Your task to perform on an android device: choose inbox layout in the gmail app Image 0: 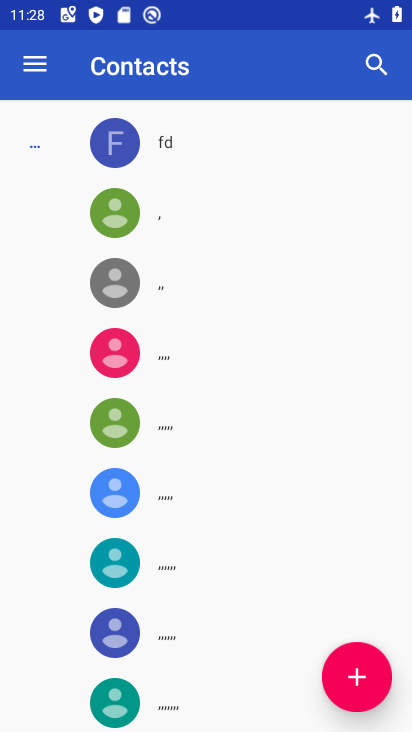
Step 0: press home button
Your task to perform on an android device: choose inbox layout in the gmail app Image 1: 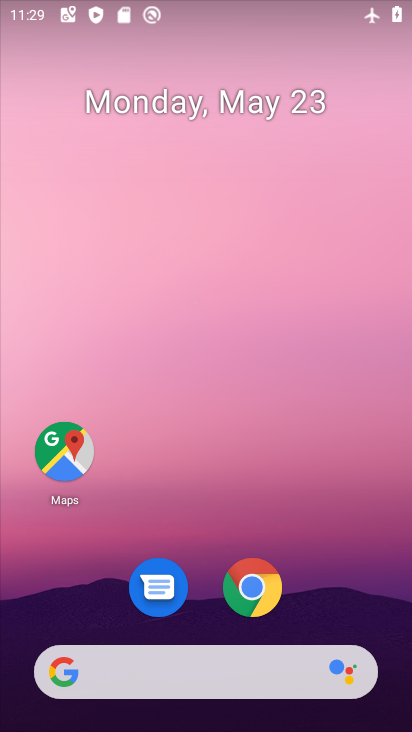
Step 1: drag from (390, 636) to (278, 165)
Your task to perform on an android device: choose inbox layout in the gmail app Image 2: 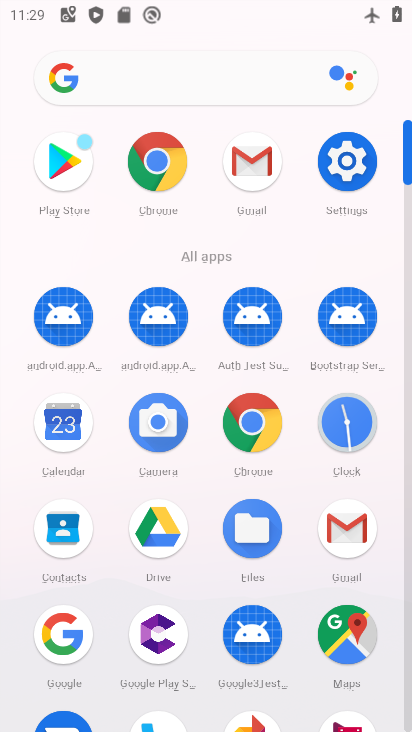
Step 2: click (251, 174)
Your task to perform on an android device: choose inbox layout in the gmail app Image 3: 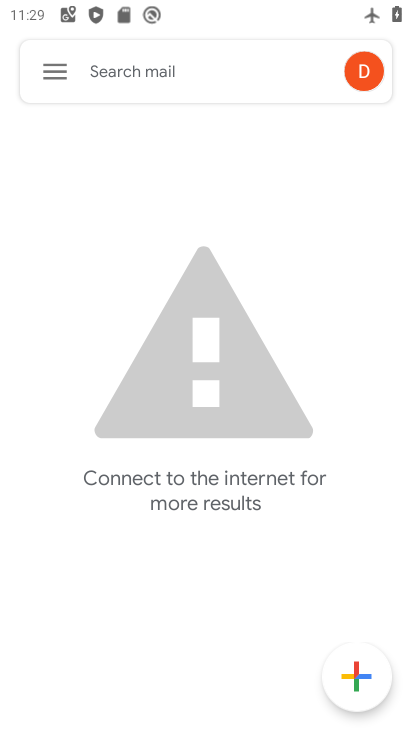
Step 3: click (56, 80)
Your task to perform on an android device: choose inbox layout in the gmail app Image 4: 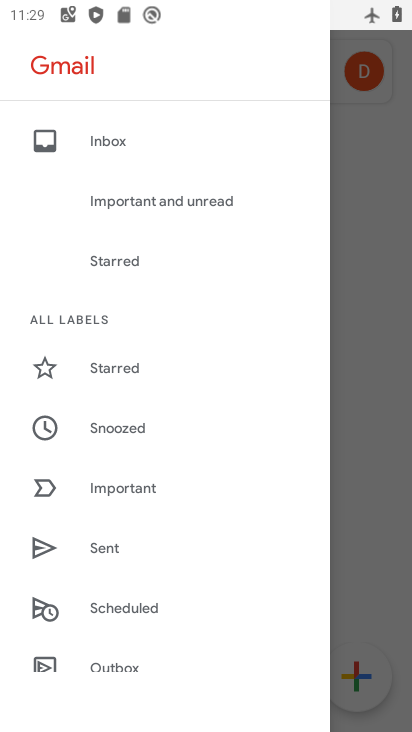
Step 4: drag from (167, 645) to (134, 237)
Your task to perform on an android device: choose inbox layout in the gmail app Image 5: 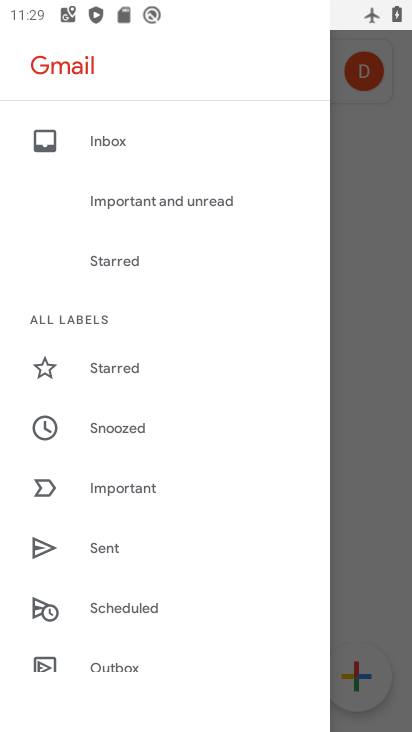
Step 5: drag from (98, 629) to (68, 203)
Your task to perform on an android device: choose inbox layout in the gmail app Image 6: 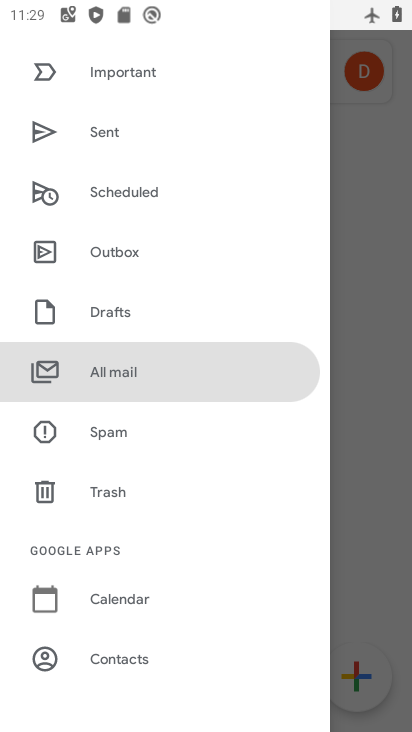
Step 6: drag from (128, 628) to (122, 274)
Your task to perform on an android device: choose inbox layout in the gmail app Image 7: 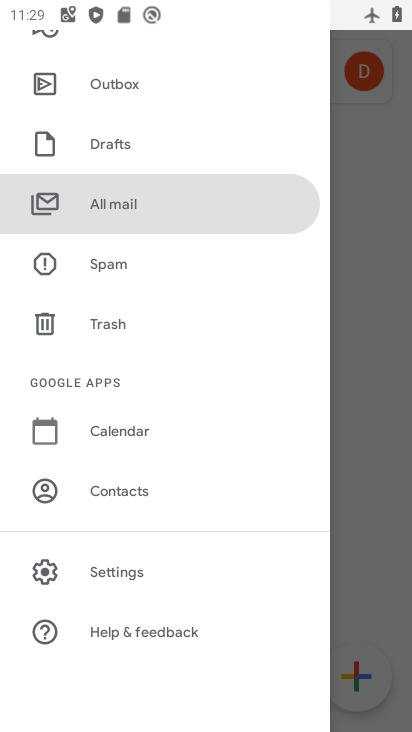
Step 7: click (124, 575)
Your task to perform on an android device: choose inbox layout in the gmail app Image 8: 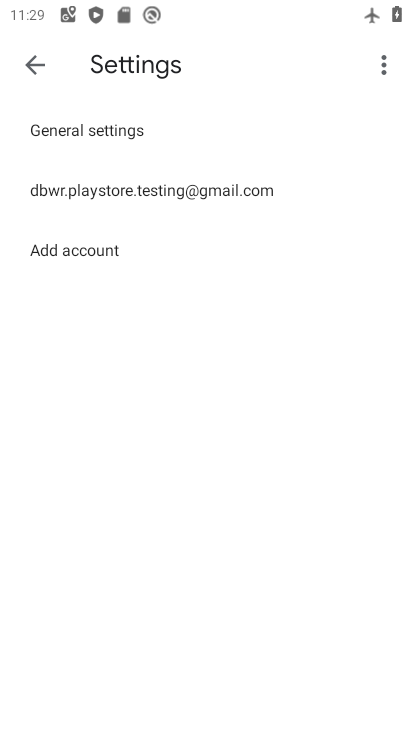
Step 8: click (130, 202)
Your task to perform on an android device: choose inbox layout in the gmail app Image 9: 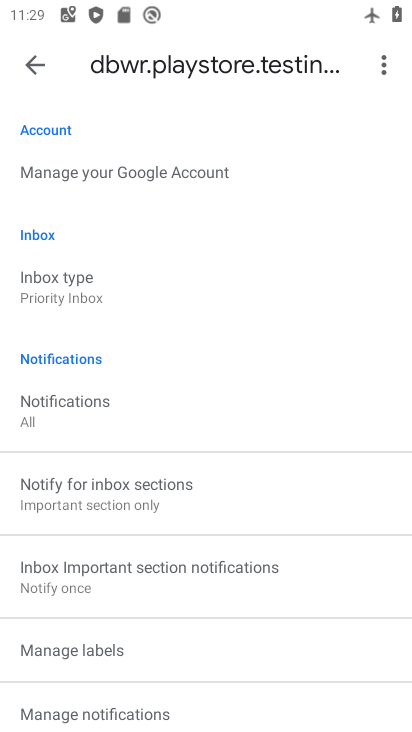
Step 9: click (124, 289)
Your task to perform on an android device: choose inbox layout in the gmail app Image 10: 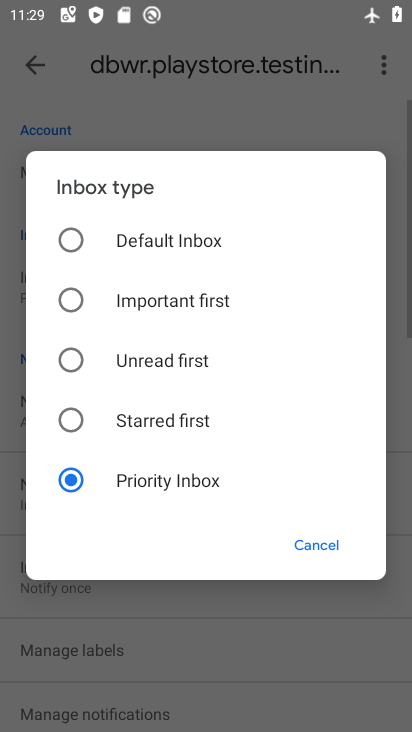
Step 10: click (131, 296)
Your task to perform on an android device: choose inbox layout in the gmail app Image 11: 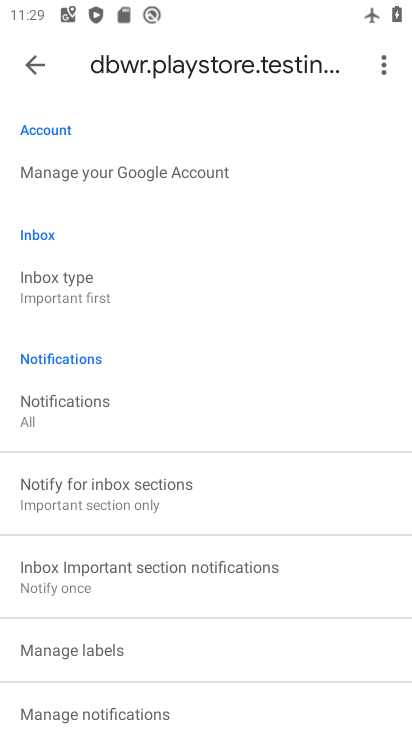
Step 11: task complete